Your task to perform on an android device: Open the web browser Image 0: 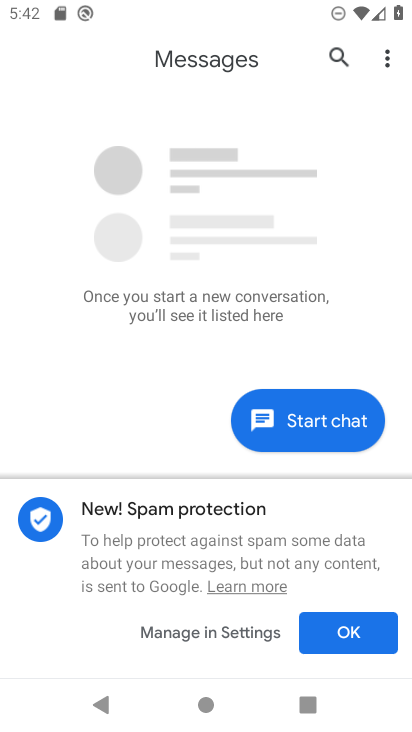
Step 0: drag from (234, 575) to (212, 21)
Your task to perform on an android device: Open the web browser Image 1: 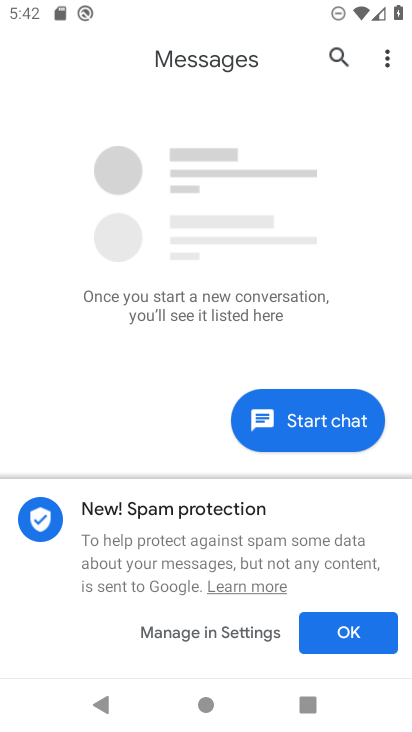
Step 1: press home button
Your task to perform on an android device: Open the web browser Image 2: 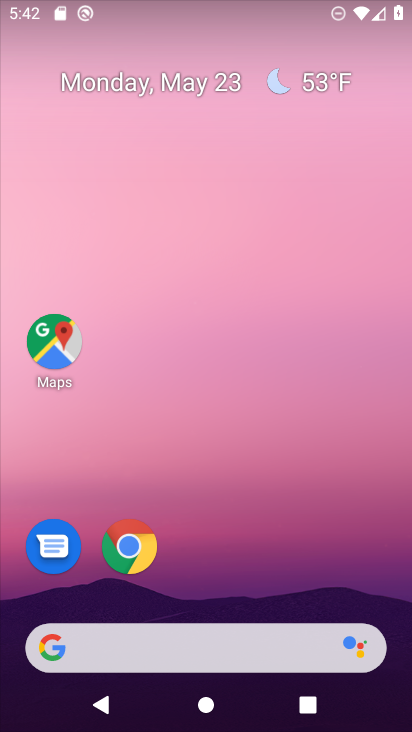
Step 2: click (128, 549)
Your task to perform on an android device: Open the web browser Image 3: 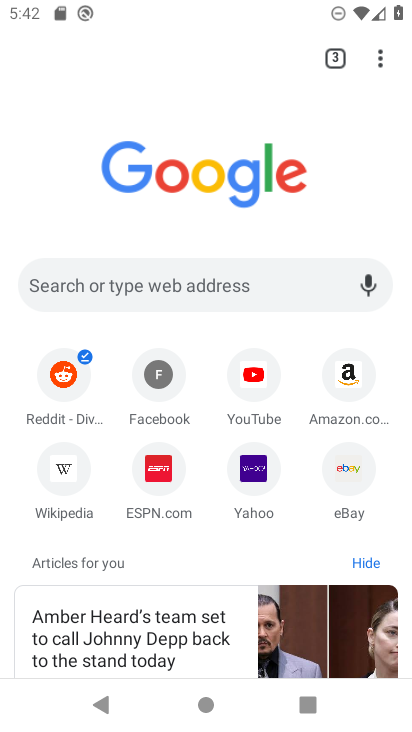
Step 3: task complete